Your task to perform on an android device: Open maps Image 0: 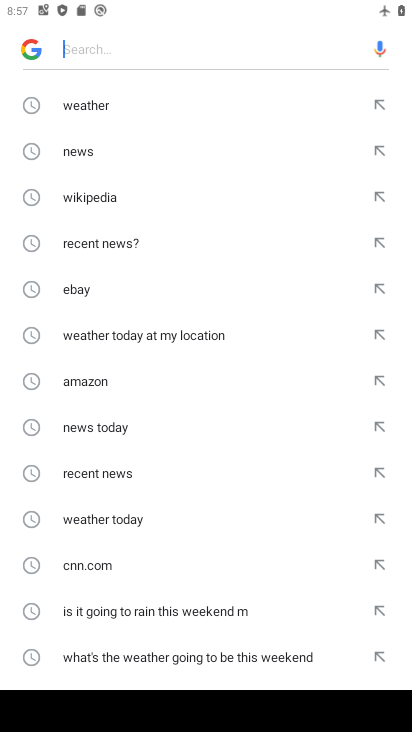
Step 0: press home button
Your task to perform on an android device: Open maps Image 1: 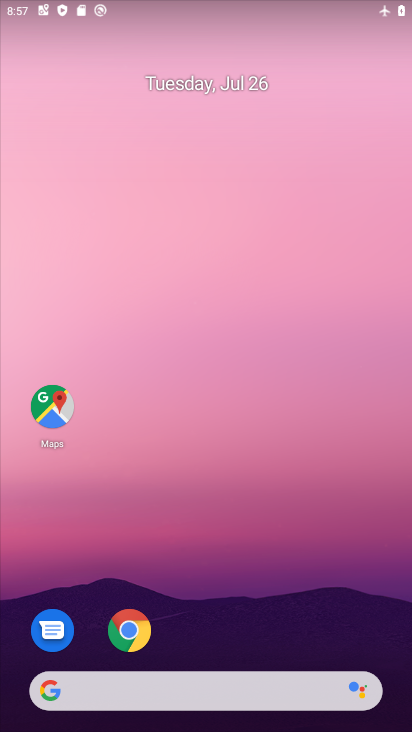
Step 1: click (55, 443)
Your task to perform on an android device: Open maps Image 2: 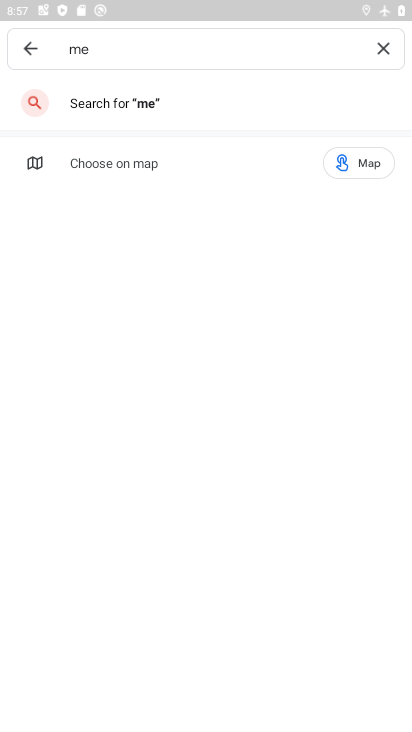
Step 2: task complete